Your task to perform on an android device: toggle improve location accuracy Image 0: 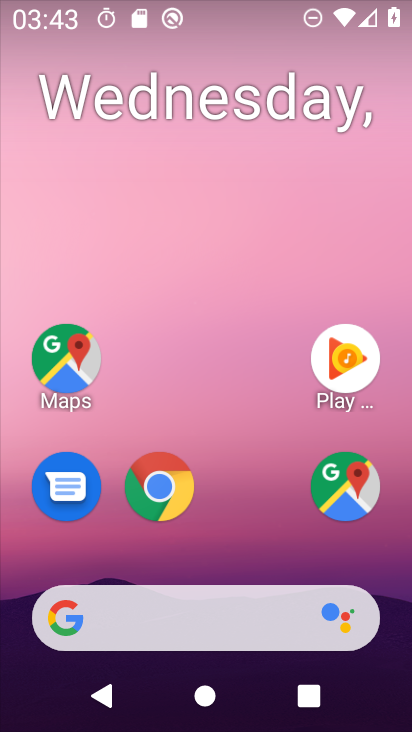
Step 0: press home button
Your task to perform on an android device: toggle improve location accuracy Image 1: 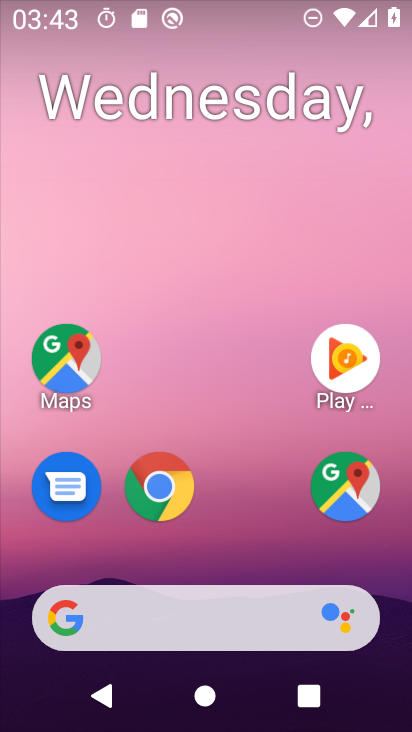
Step 1: drag from (241, 541) to (248, 121)
Your task to perform on an android device: toggle improve location accuracy Image 2: 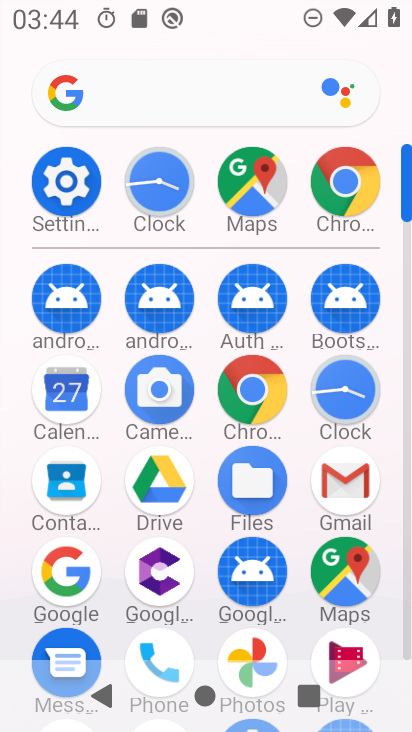
Step 2: click (74, 183)
Your task to perform on an android device: toggle improve location accuracy Image 3: 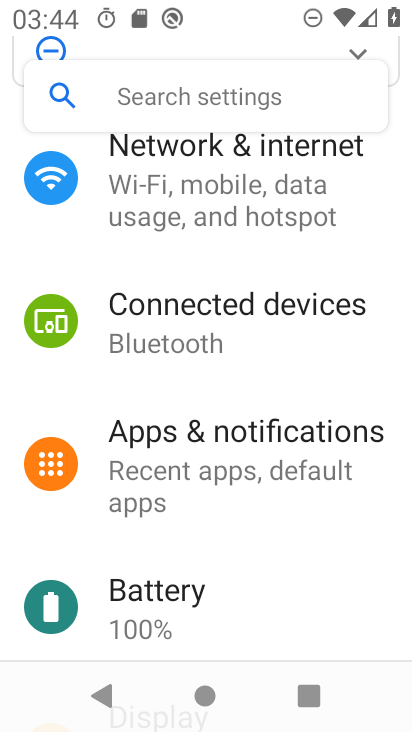
Step 3: drag from (362, 230) to (373, 352)
Your task to perform on an android device: toggle improve location accuracy Image 4: 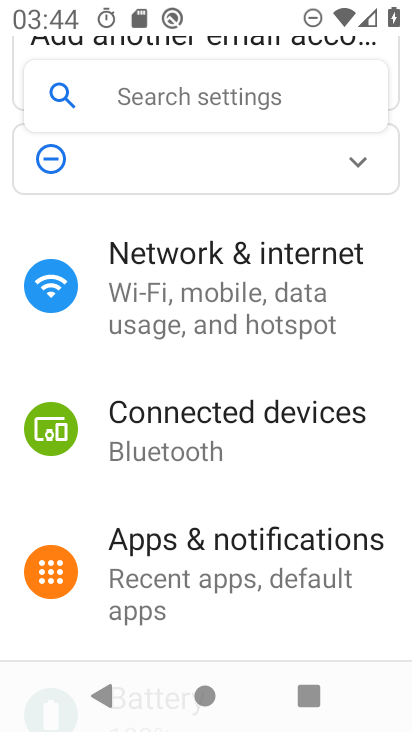
Step 4: drag from (373, 235) to (375, 403)
Your task to perform on an android device: toggle improve location accuracy Image 5: 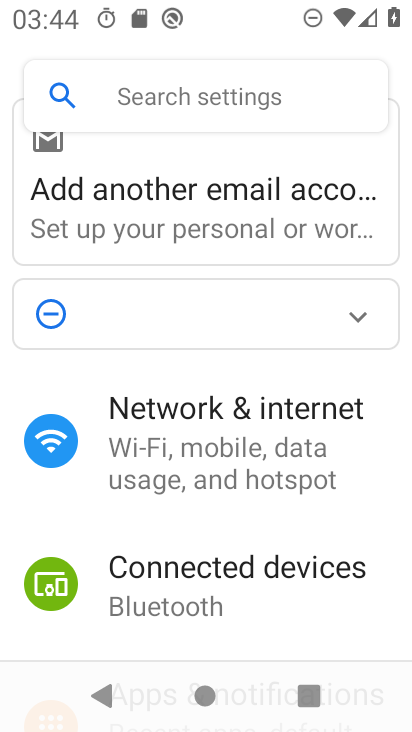
Step 5: drag from (375, 516) to (372, 416)
Your task to perform on an android device: toggle improve location accuracy Image 6: 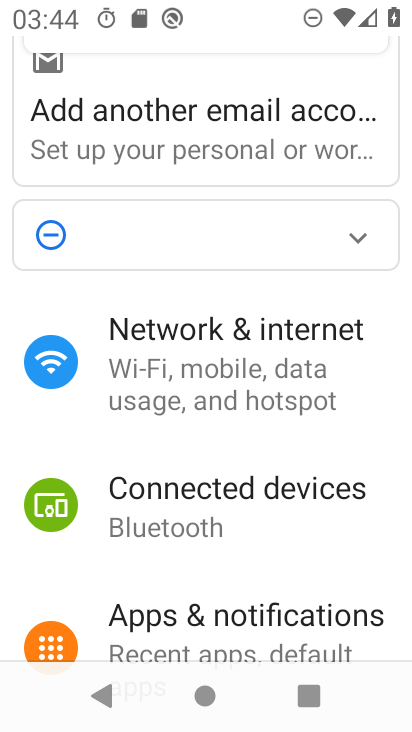
Step 6: drag from (354, 543) to (361, 440)
Your task to perform on an android device: toggle improve location accuracy Image 7: 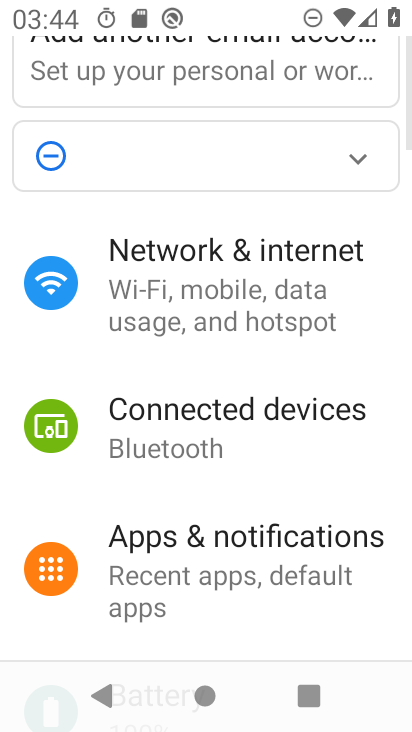
Step 7: drag from (349, 588) to (355, 489)
Your task to perform on an android device: toggle improve location accuracy Image 8: 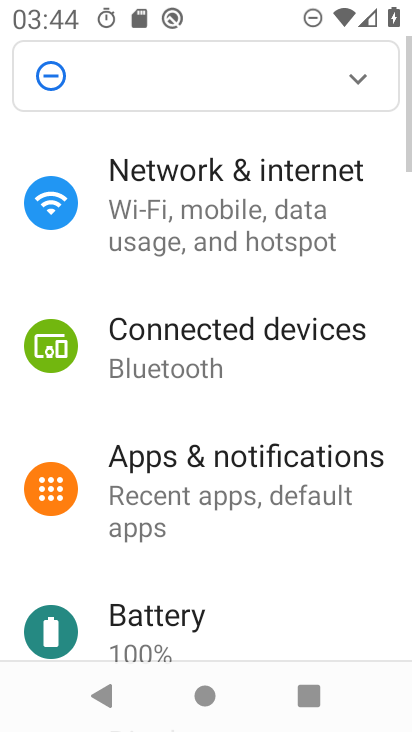
Step 8: drag from (340, 597) to (348, 494)
Your task to perform on an android device: toggle improve location accuracy Image 9: 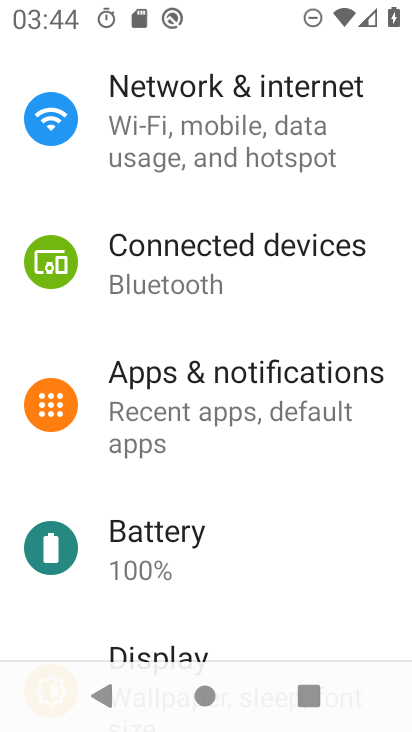
Step 9: drag from (360, 575) to (351, 473)
Your task to perform on an android device: toggle improve location accuracy Image 10: 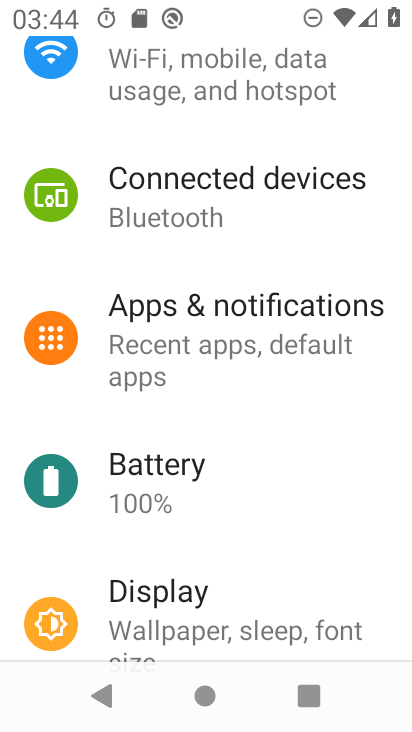
Step 10: drag from (342, 545) to (350, 436)
Your task to perform on an android device: toggle improve location accuracy Image 11: 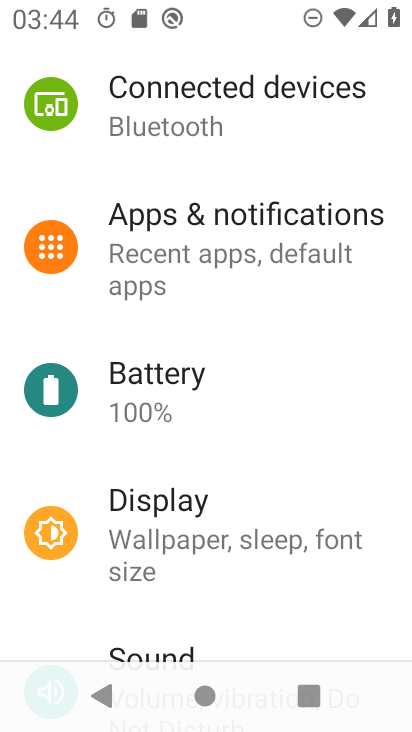
Step 11: drag from (340, 491) to (348, 381)
Your task to perform on an android device: toggle improve location accuracy Image 12: 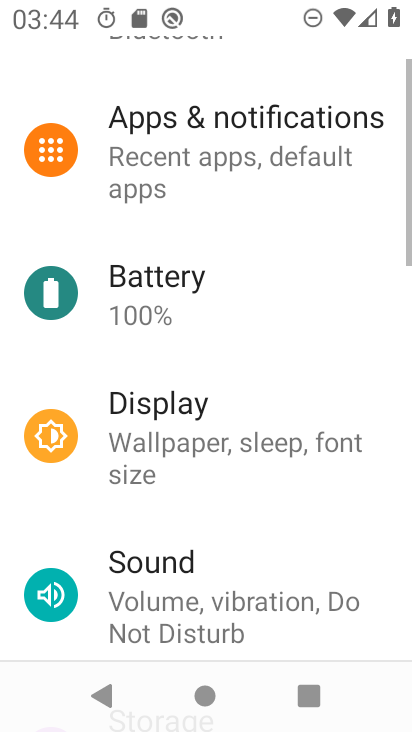
Step 12: drag from (338, 530) to (355, 392)
Your task to perform on an android device: toggle improve location accuracy Image 13: 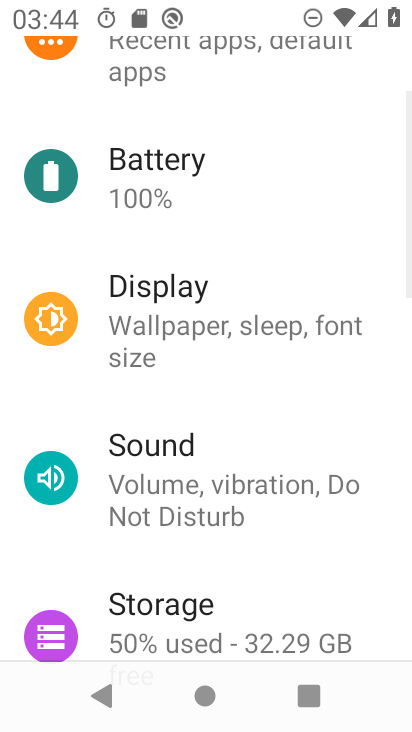
Step 13: drag from (336, 556) to (339, 421)
Your task to perform on an android device: toggle improve location accuracy Image 14: 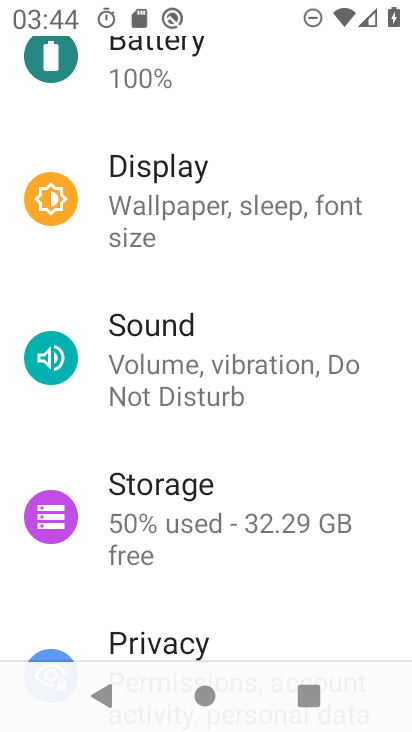
Step 14: drag from (309, 563) to (312, 397)
Your task to perform on an android device: toggle improve location accuracy Image 15: 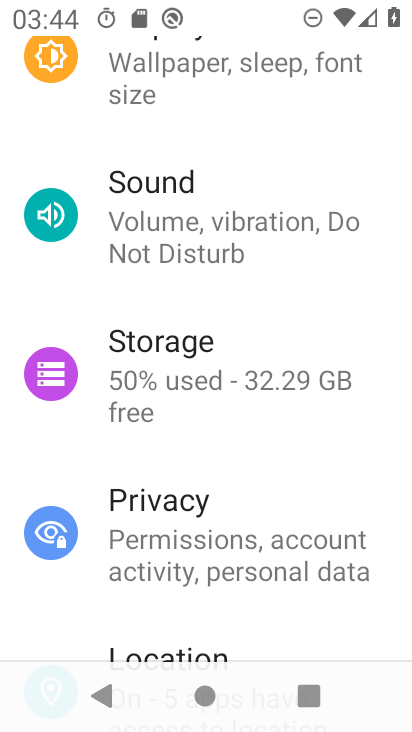
Step 15: drag from (303, 608) to (301, 490)
Your task to perform on an android device: toggle improve location accuracy Image 16: 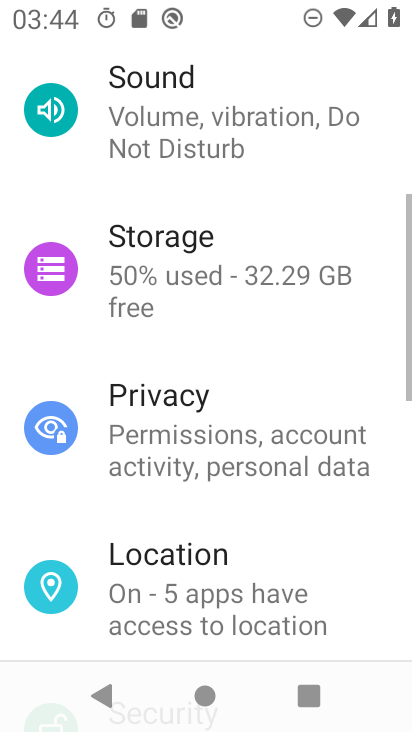
Step 16: drag from (352, 614) to (365, 488)
Your task to perform on an android device: toggle improve location accuracy Image 17: 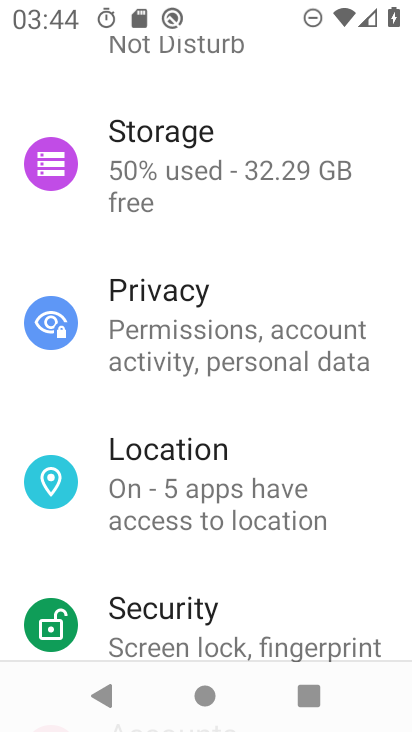
Step 17: click (276, 509)
Your task to perform on an android device: toggle improve location accuracy Image 18: 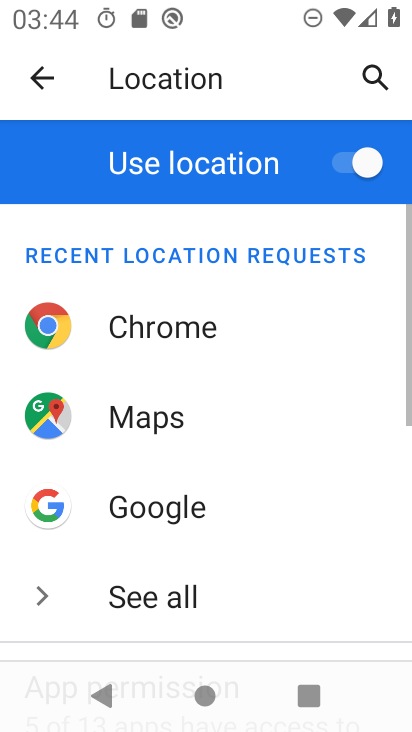
Step 18: drag from (275, 565) to (277, 419)
Your task to perform on an android device: toggle improve location accuracy Image 19: 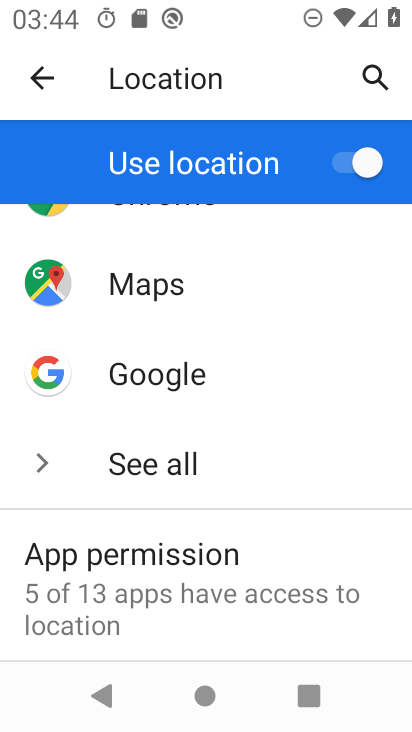
Step 19: drag from (277, 595) to (280, 506)
Your task to perform on an android device: toggle improve location accuracy Image 20: 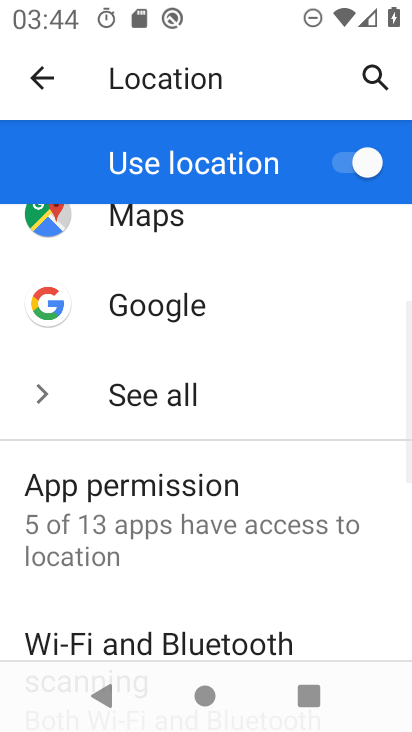
Step 20: drag from (264, 594) to (259, 443)
Your task to perform on an android device: toggle improve location accuracy Image 21: 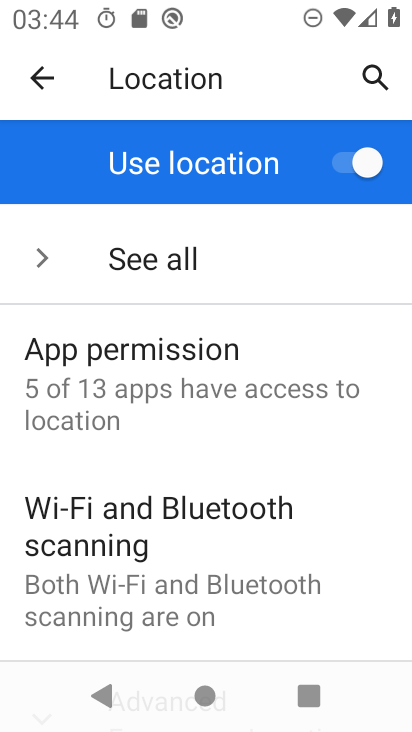
Step 21: drag from (296, 612) to (301, 469)
Your task to perform on an android device: toggle improve location accuracy Image 22: 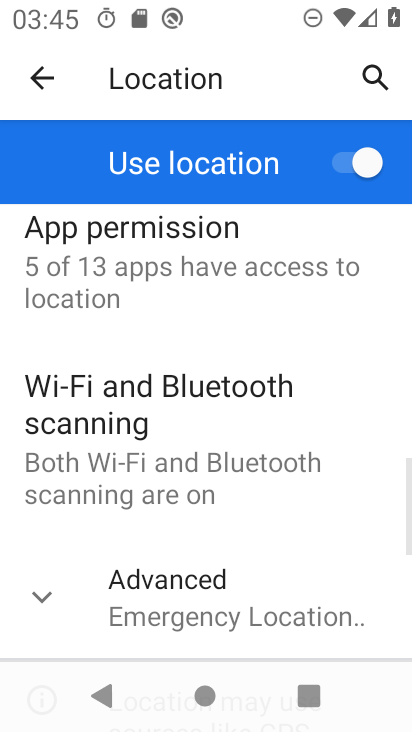
Step 22: click (292, 592)
Your task to perform on an android device: toggle improve location accuracy Image 23: 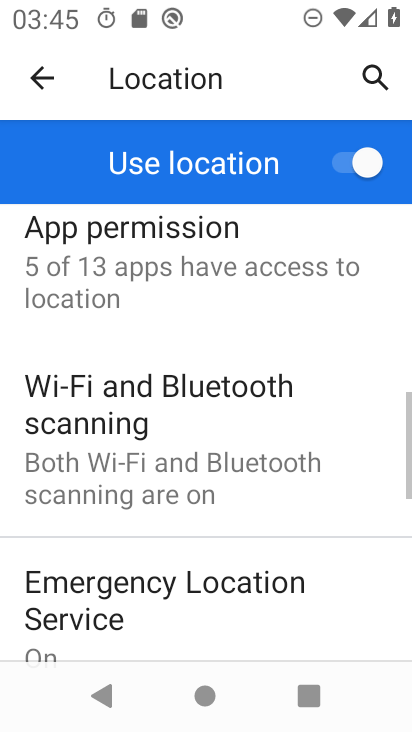
Step 23: drag from (290, 608) to (284, 545)
Your task to perform on an android device: toggle improve location accuracy Image 24: 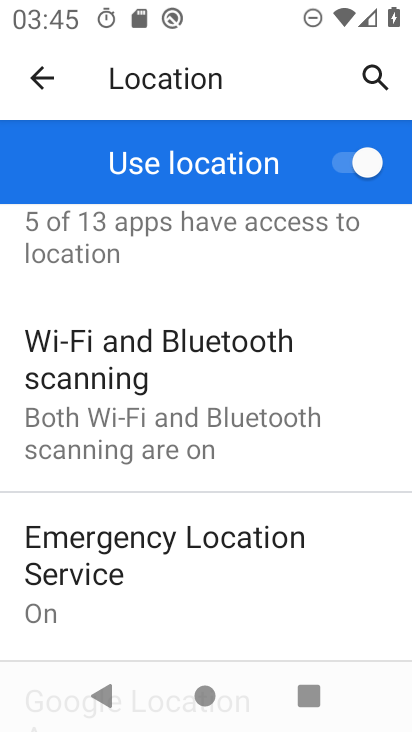
Step 24: drag from (309, 606) to (309, 513)
Your task to perform on an android device: toggle improve location accuracy Image 25: 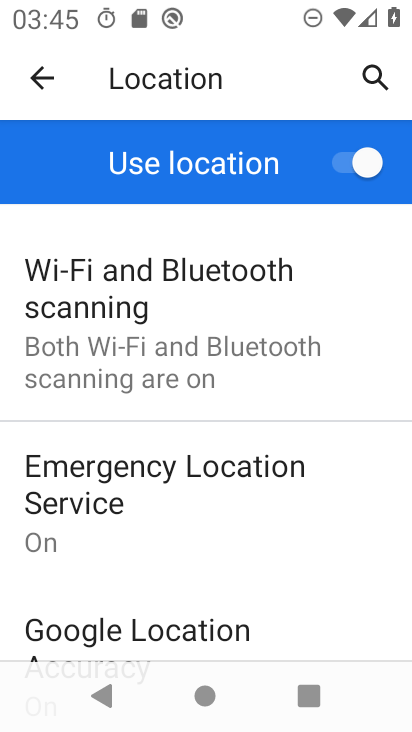
Step 25: drag from (309, 594) to (318, 473)
Your task to perform on an android device: toggle improve location accuracy Image 26: 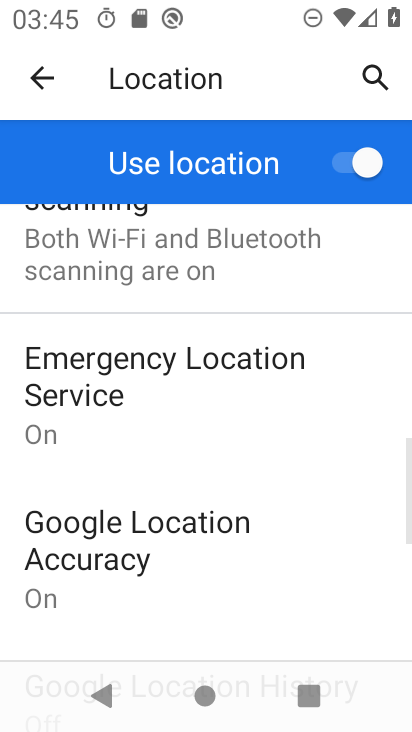
Step 26: click (236, 570)
Your task to perform on an android device: toggle improve location accuracy Image 27: 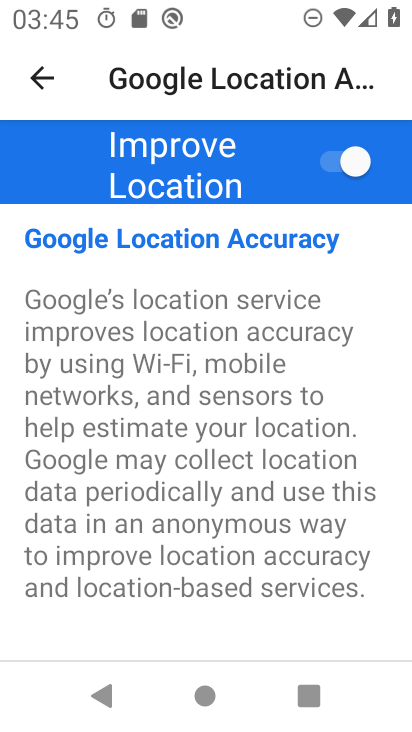
Step 27: click (353, 164)
Your task to perform on an android device: toggle improve location accuracy Image 28: 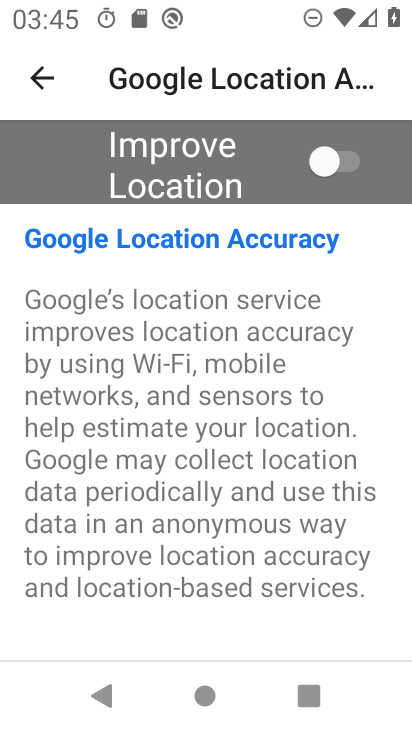
Step 28: task complete